Your task to perform on an android device: Go to Reddit.com Image 0: 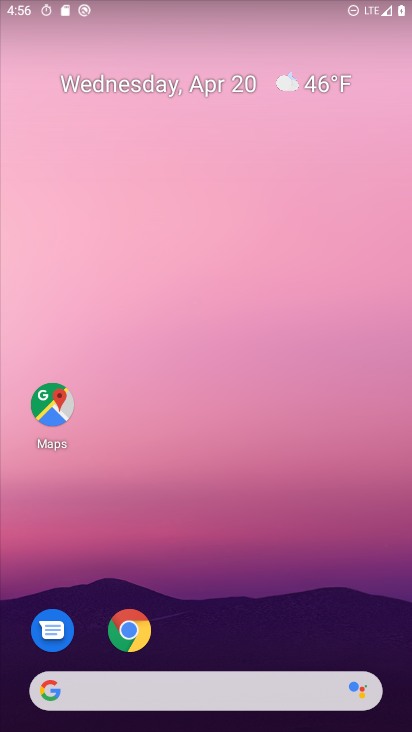
Step 0: drag from (298, 530) to (225, 35)
Your task to perform on an android device: Go to Reddit.com Image 1: 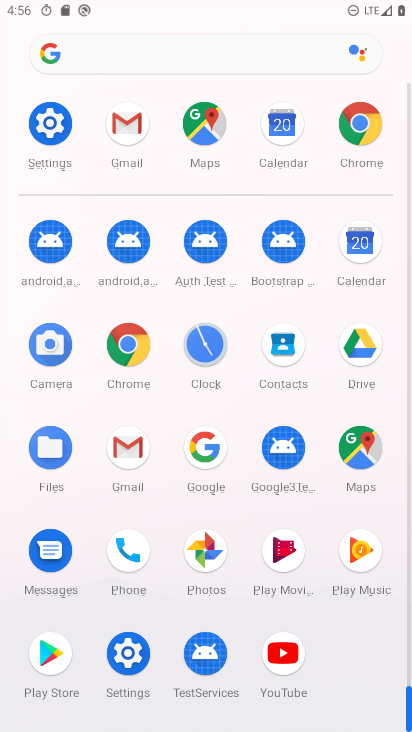
Step 1: click (134, 354)
Your task to perform on an android device: Go to Reddit.com Image 2: 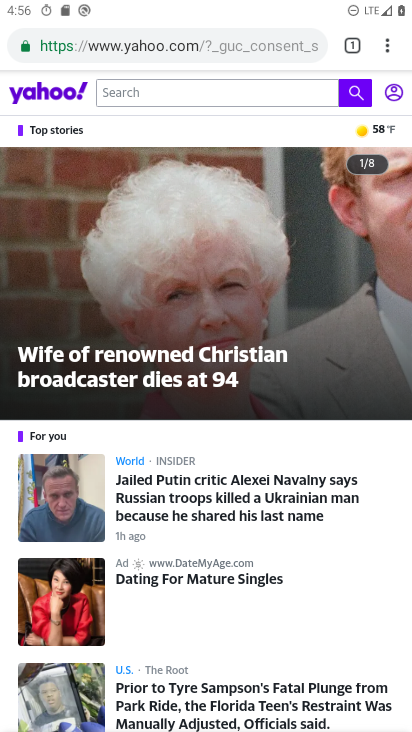
Step 2: click (274, 40)
Your task to perform on an android device: Go to Reddit.com Image 3: 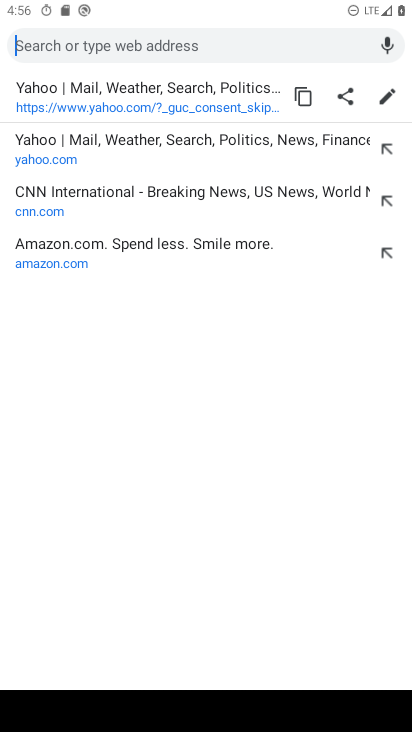
Step 3: type "reddit.com"
Your task to perform on an android device: Go to Reddit.com Image 4: 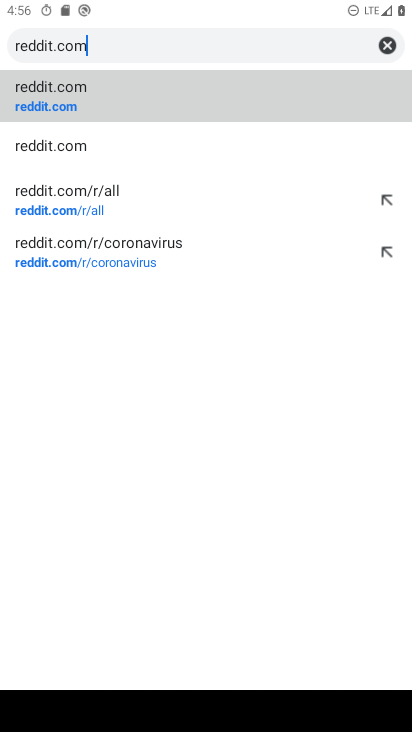
Step 4: click (248, 109)
Your task to perform on an android device: Go to Reddit.com Image 5: 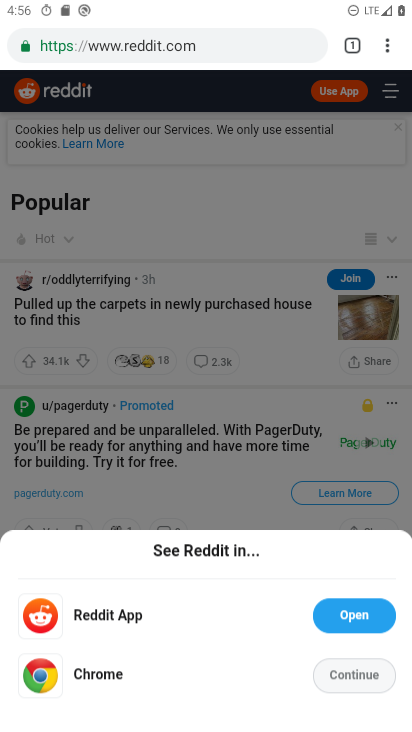
Step 5: task complete